Your task to perform on an android device: Go to Google maps Image 0: 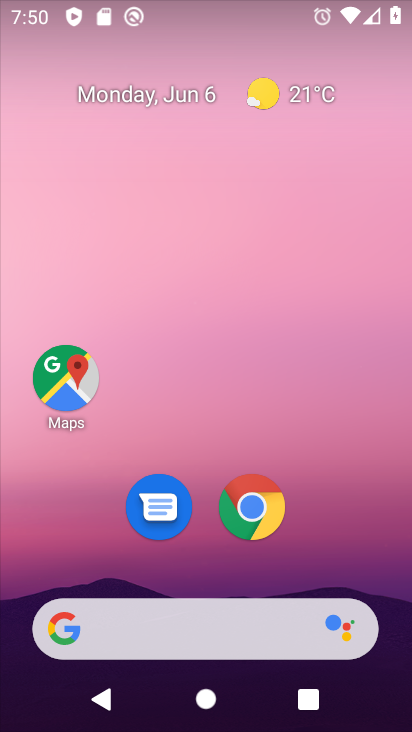
Step 0: click (64, 385)
Your task to perform on an android device: Go to Google maps Image 1: 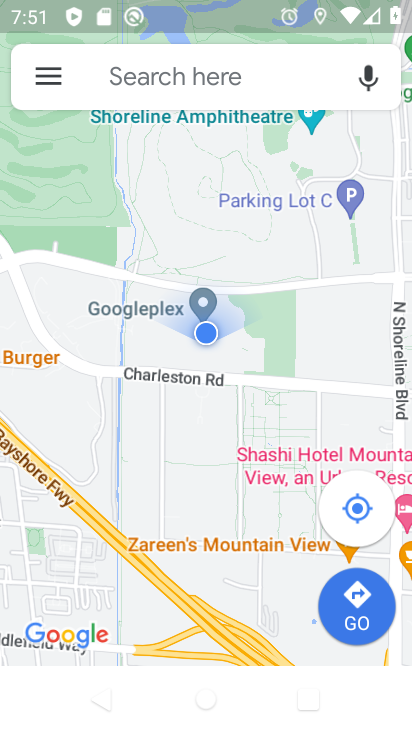
Step 1: task complete